Your task to perform on an android device: Open Google Image 0: 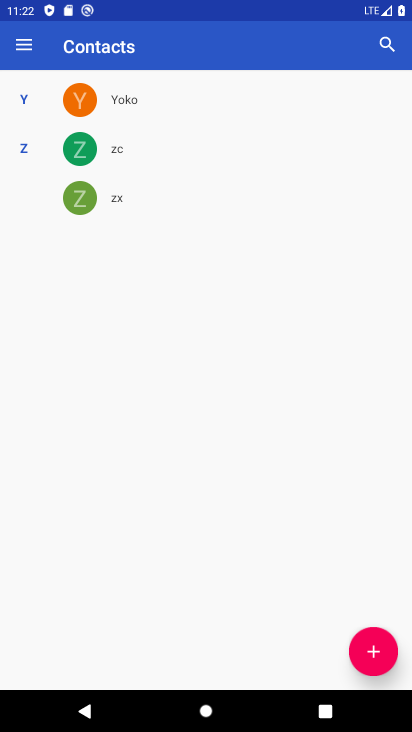
Step 0: press home button
Your task to perform on an android device: Open Google Image 1: 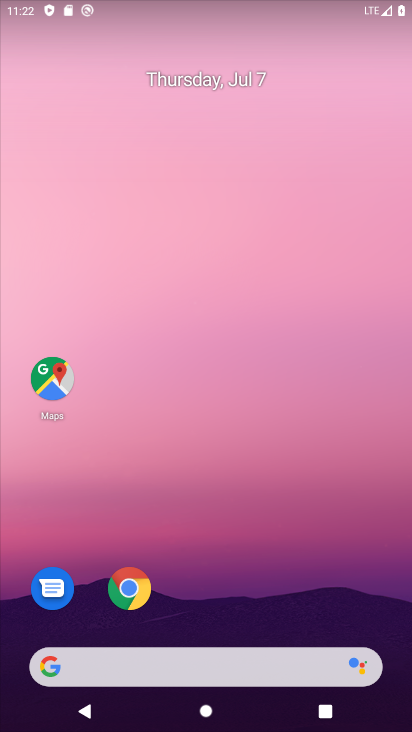
Step 1: drag from (240, 579) to (242, 212)
Your task to perform on an android device: Open Google Image 2: 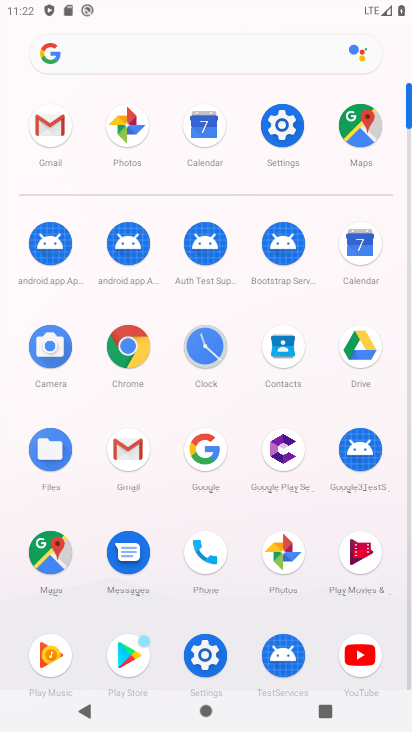
Step 2: click (199, 452)
Your task to perform on an android device: Open Google Image 3: 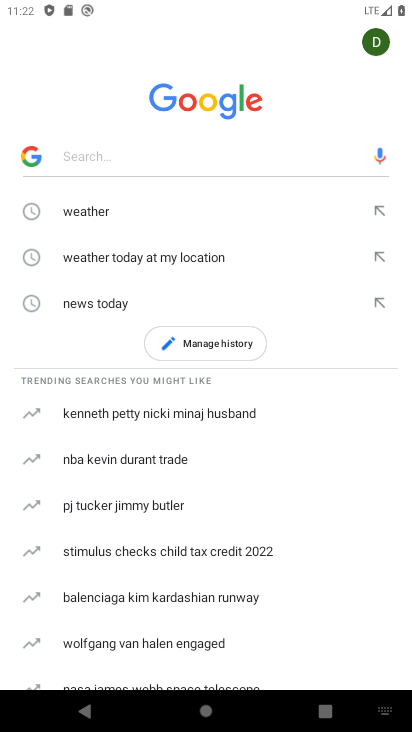
Step 3: task complete